Your task to perform on an android device: Go to battery settings Image 0: 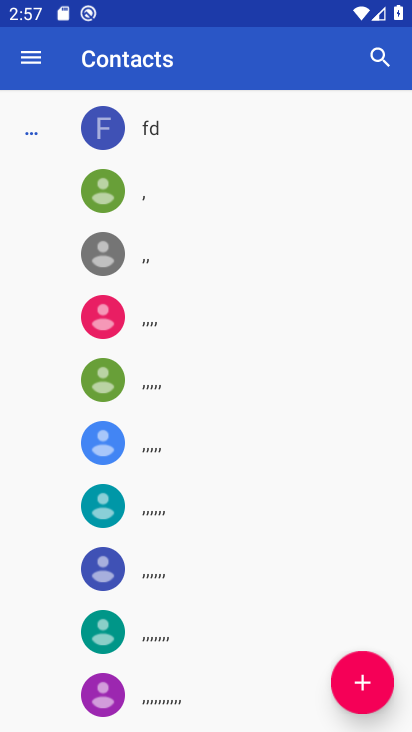
Step 0: press home button
Your task to perform on an android device: Go to battery settings Image 1: 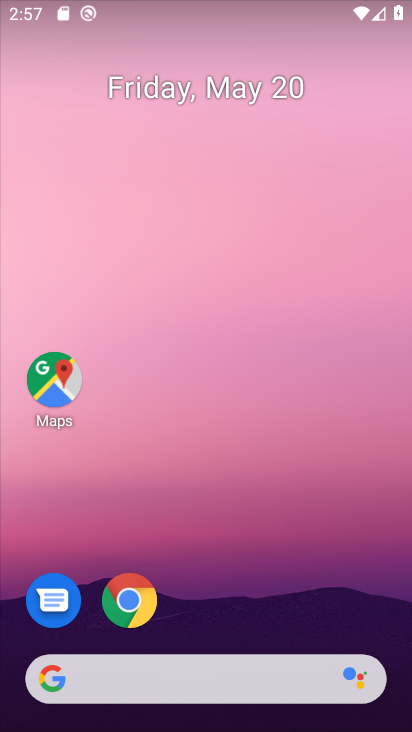
Step 1: drag from (356, 597) to (323, 167)
Your task to perform on an android device: Go to battery settings Image 2: 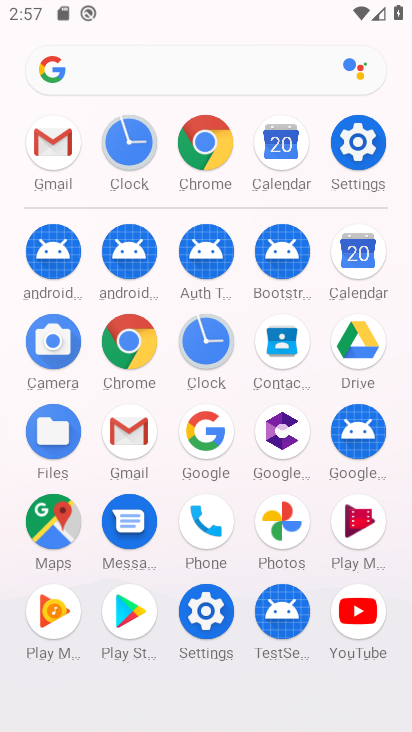
Step 2: click (369, 149)
Your task to perform on an android device: Go to battery settings Image 3: 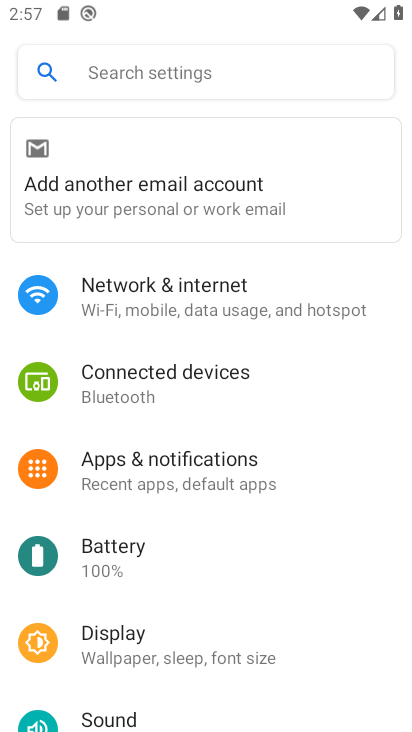
Step 3: drag from (346, 567) to (340, 466)
Your task to perform on an android device: Go to battery settings Image 4: 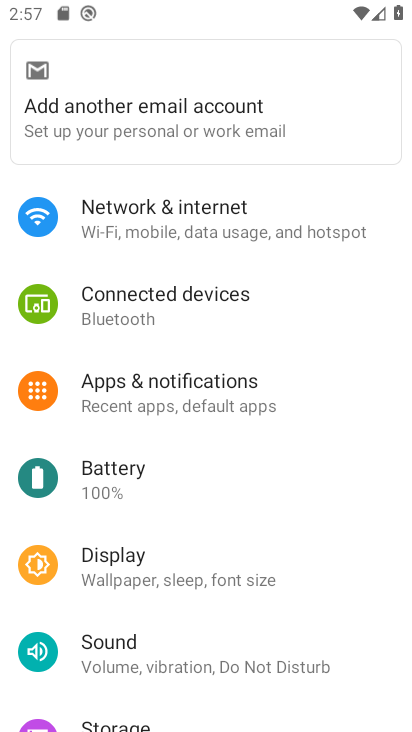
Step 4: drag from (329, 605) to (324, 491)
Your task to perform on an android device: Go to battery settings Image 5: 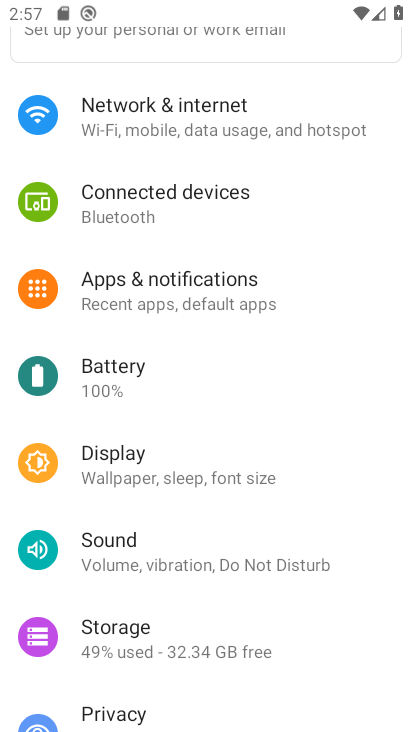
Step 5: drag from (326, 637) to (325, 513)
Your task to perform on an android device: Go to battery settings Image 6: 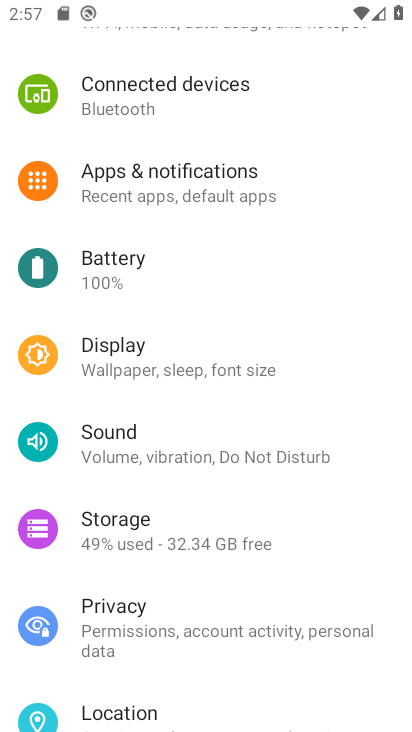
Step 6: drag from (344, 687) to (346, 547)
Your task to perform on an android device: Go to battery settings Image 7: 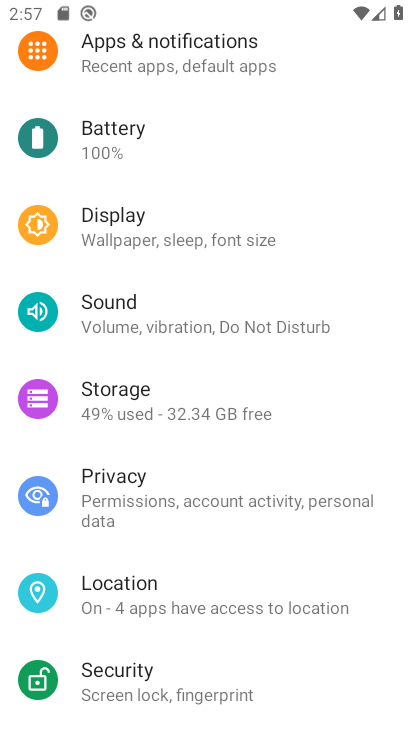
Step 7: drag from (352, 673) to (353, 558)
Your task to perform on an android device: Go to battery settings Image 8: 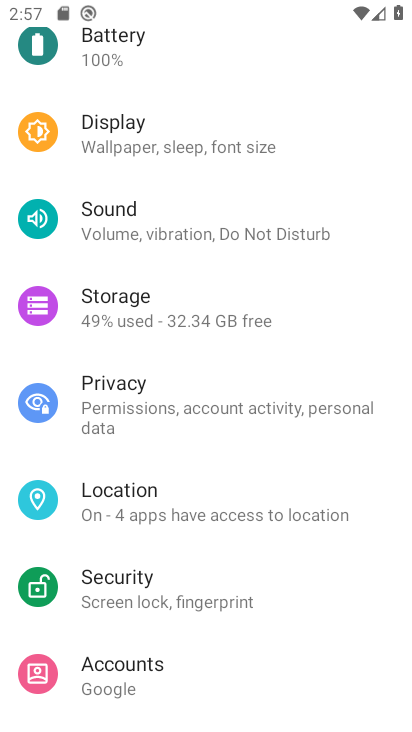
Step 8: drag from (337, 653) to (337, 555)
Your task to perform on an android device: Go to battery settings Image 9: 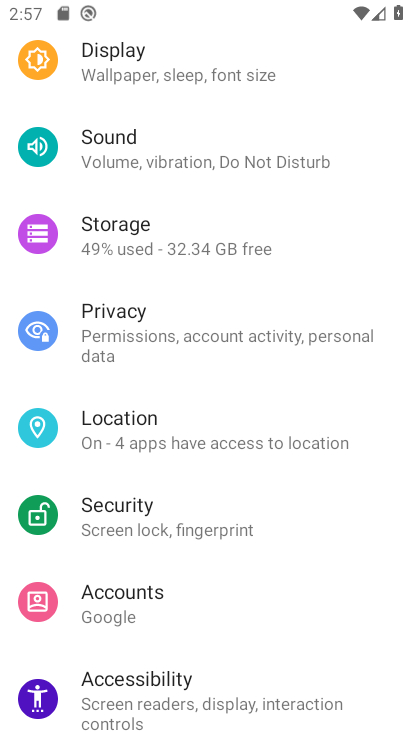
Step 9: drag from (342, 659) to (330, 524)
Your task to perform on an android device: Go to battery settings Image 10: 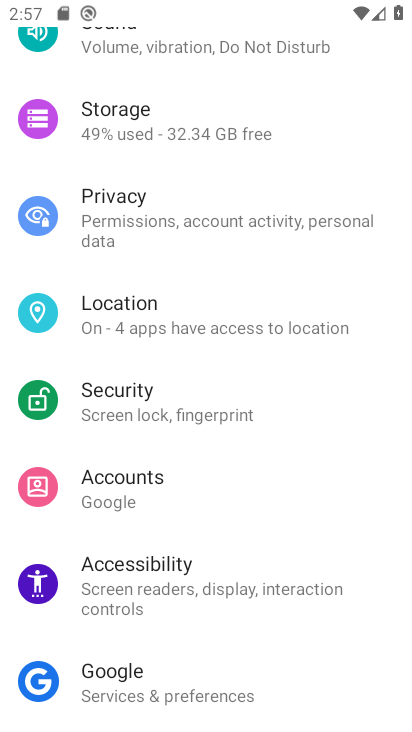
Step 10: drag from (342, 666) to (337, 564)
Your task to perform on an android device: Go to battery settings Image 11: 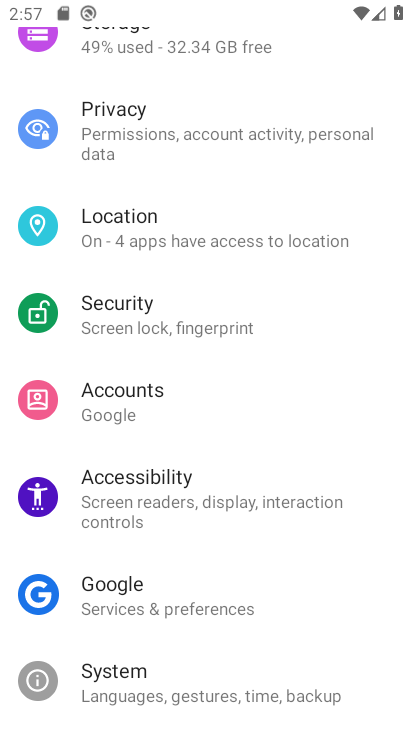
Step 11: drag from (339, 666) to (326, 550)
Your task to perform on an android device: Go to battery settings Image 12: 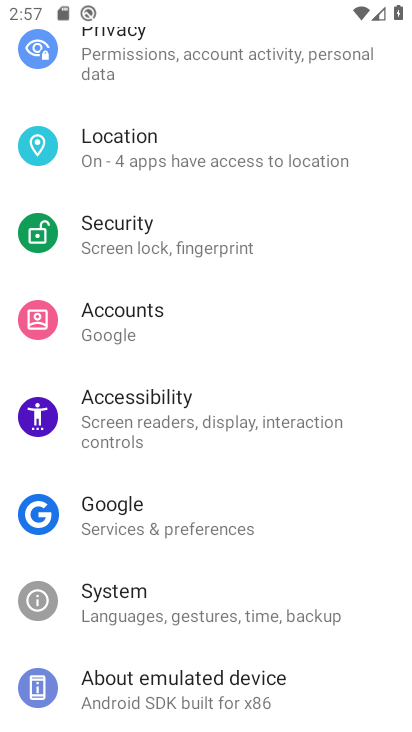
Step 12: drag from (335, 674) to (327, 551)
Your task to perform on an android device: Go to battery settings Image 13: 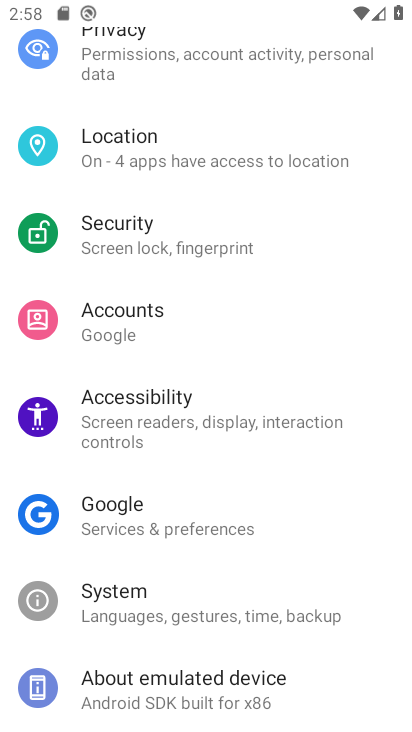
Step 13: drag from (353, 363) to (361, 541)
Your task to perform on an android device: Go to battery settings Image 14: 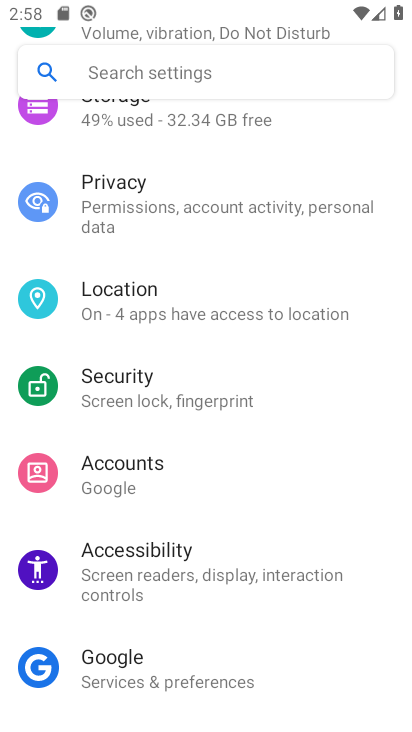
Step 14: drag from (356, 382) to (354, 495)
Your task to perform on an android device: Go to battery settings Image 15: 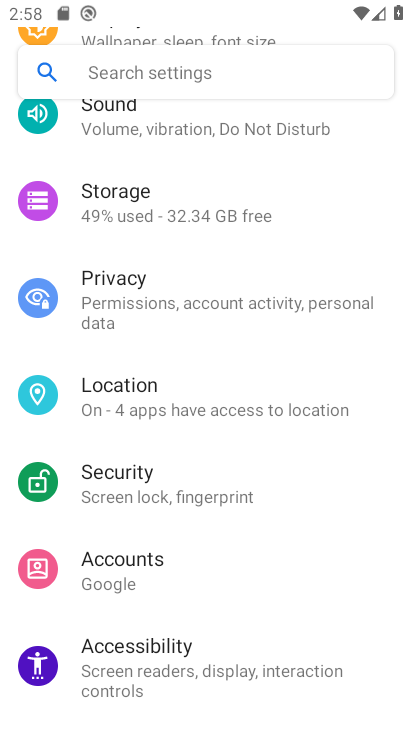
Step 15: drag from (346, 347) to (350, 511)
Your task to perform on an android device: Go to battery settings Image 16: 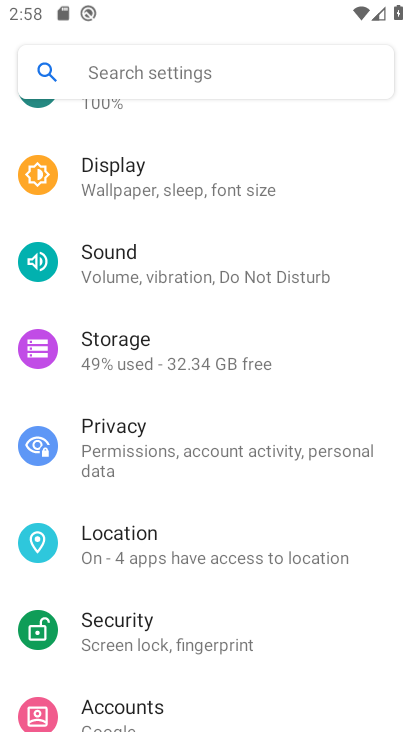
Step 16: drag from (339, 327) to (347, 478)
Your task to perform on an android device: Go to battery settings Image 17: 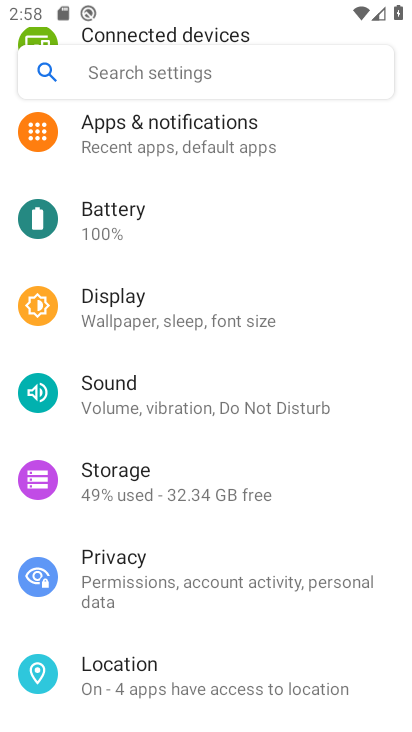
Step 17: drag from (346, 278) to (348, 467)
Your task to perform on an android device: Go to battery settings Image 18: 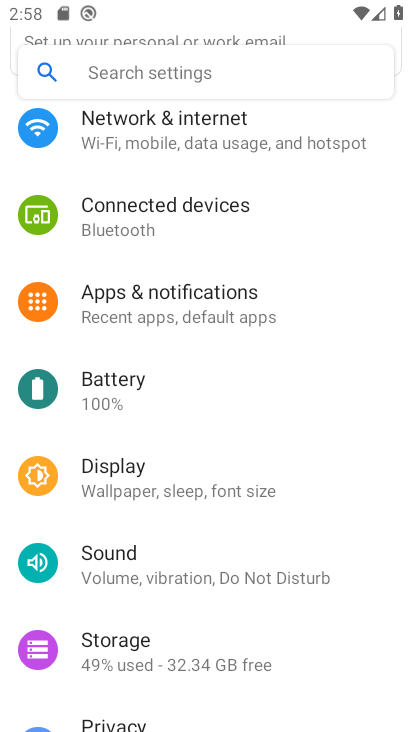
Step 18: drag from (337, 297) to (334, 455)
Your task to perform on an android device: Go to battery settings Image 19: 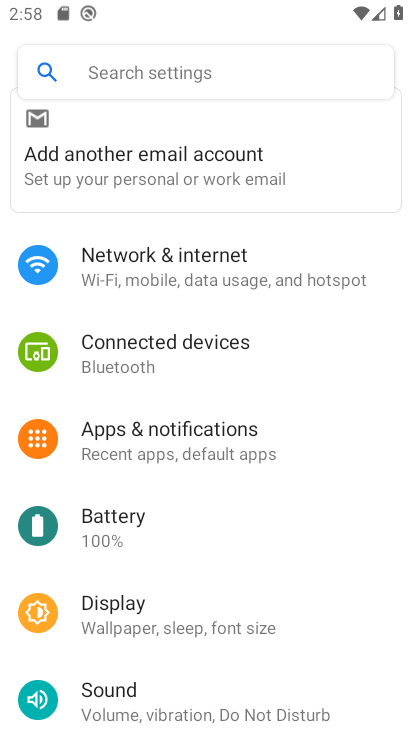
Step 19: drag from (332, 336) to (332, 419)
Your task to perform on an android device: Go to battery settings Image 20: 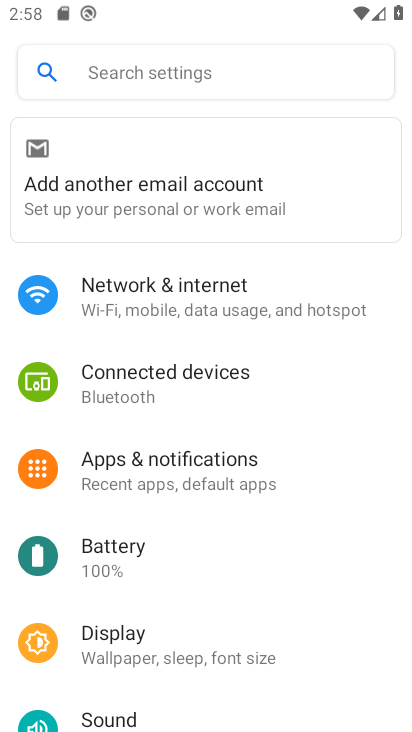
Step 20: drag from (320, 499) to (325, 391)
Your task to perform on an android device: Go to battery settings Image 21: 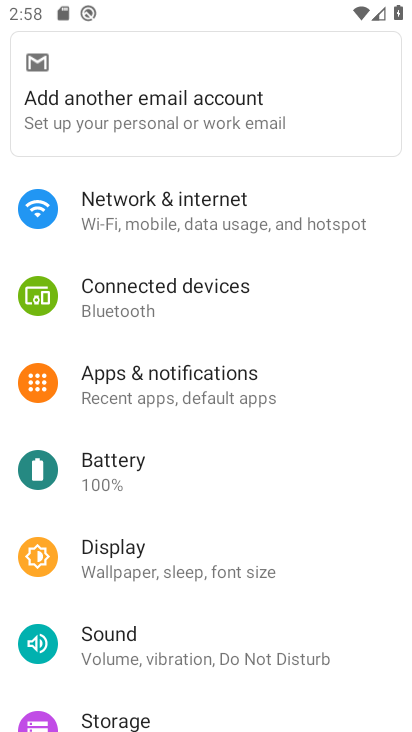
Step 21: drag from (336, 541) to (335, 458)
Your task to perform on an android device: Go to battery settings Image 22: 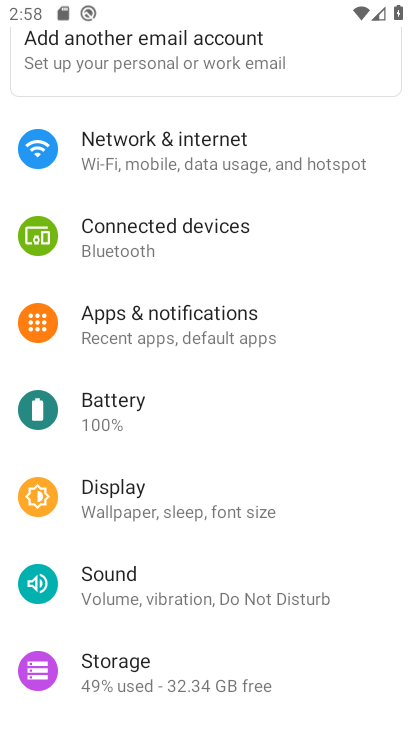
Step 22: drag from (343, 567) to (341, 438)
Your task to perform on an android device: Go to battery settings Image 23: 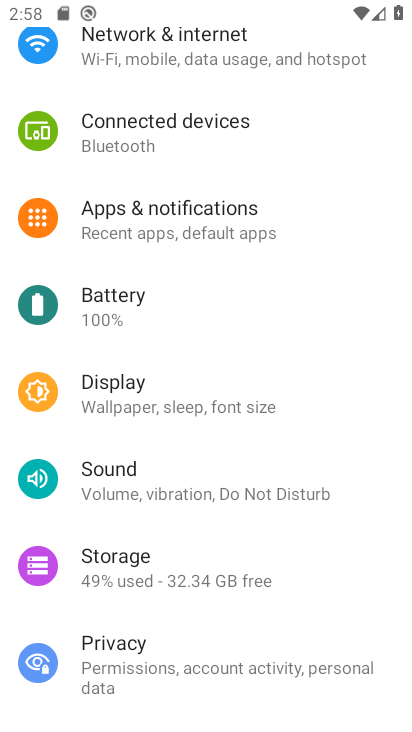
Step 23: drag from (342, 572) to (343, 477)
Your task to perform on an android device: Go to battery settings Image 24: 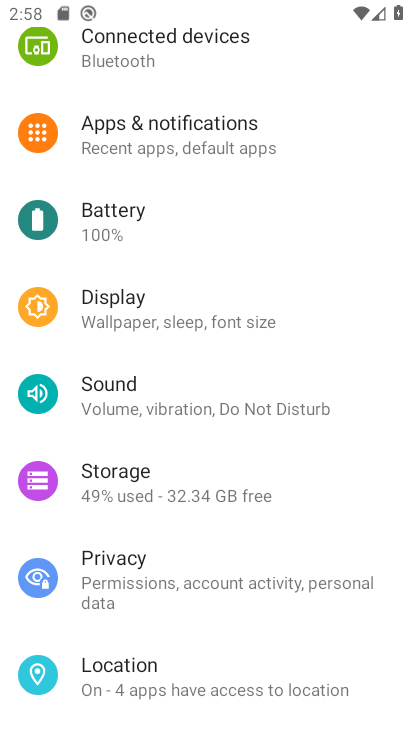
Step 24: drag from (345, 337) to (344, 490)
Your task to perform on an android device: Go to battery settings Image 25: 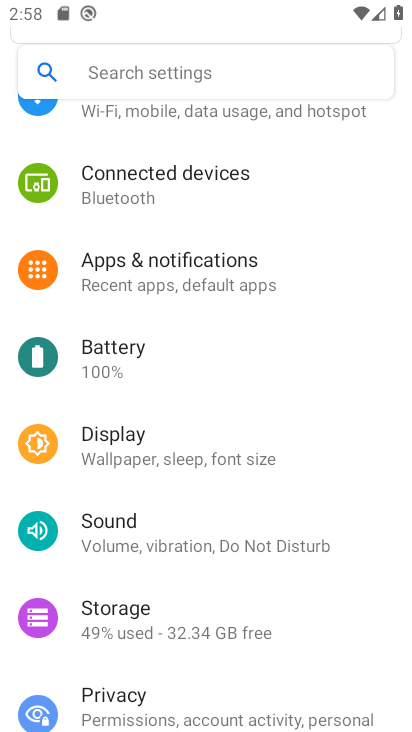
Step 25: click (141, 371)
Your task to perform on an android device: Go to battery settings Image 26: 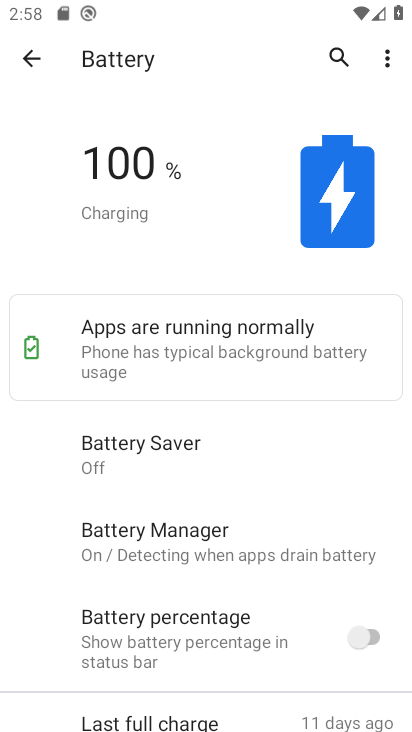
Step 26: task complete